Your task to perform on an android device: find snoozed emails in the gmail app Image 0: 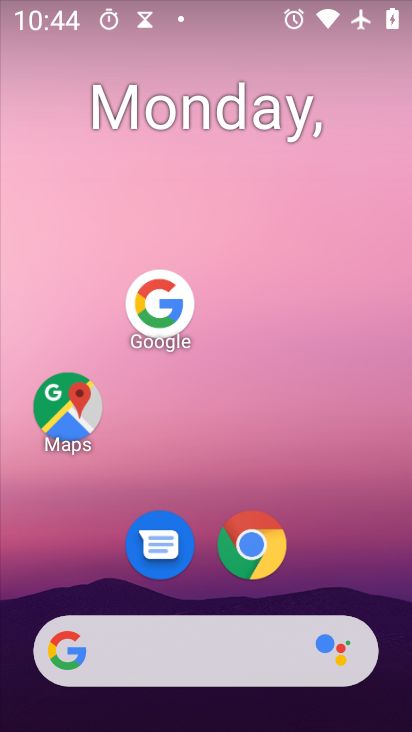
Step 0: press home button
Your task to perform on an android device: find snoozed emails in the gmail app Image 1: 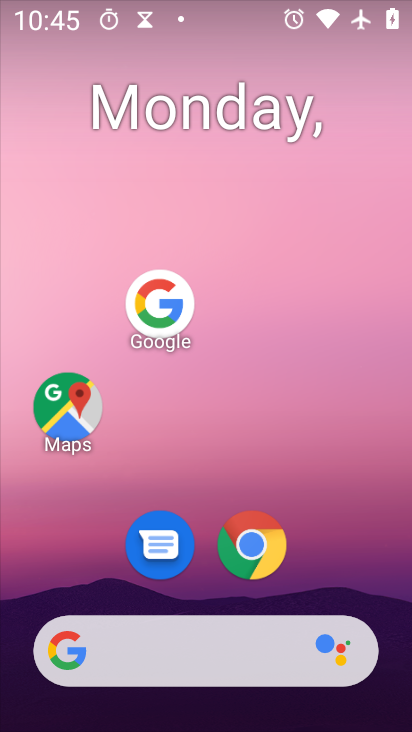
Step 1: drag from (303, 217) to (344, 109)
Your task to perform on an android device: find snoozed emails in the gmail app Image 2: 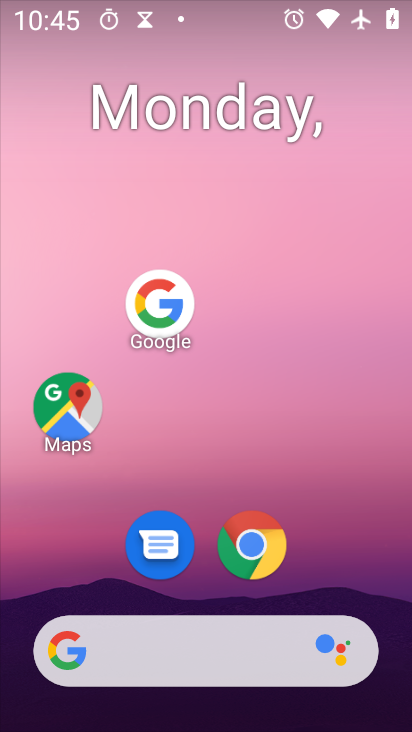
Step 2: drag from (201, 557) to (334, 109)
Your task to perform on an android device: find snoozed emails in the gmail app Image 3: 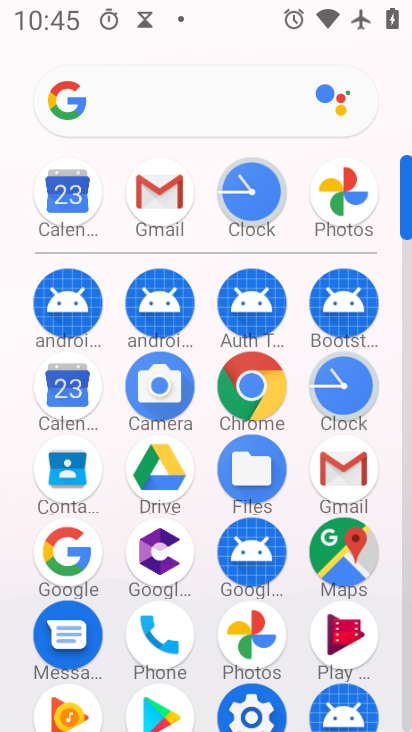
Step 3: click (148, 196)
Your task to perform on an android device: find snoozed emails in the gmail app Image 4: 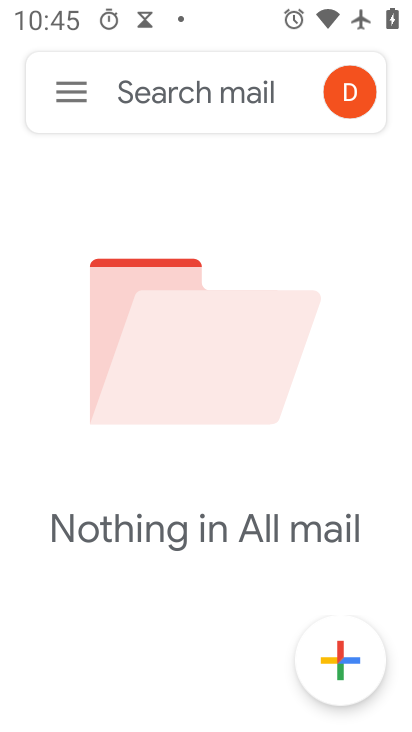
Step 4: click (69, 90)
Your task to perform on an android device: find snoozed emails in the gmail app Image 5: 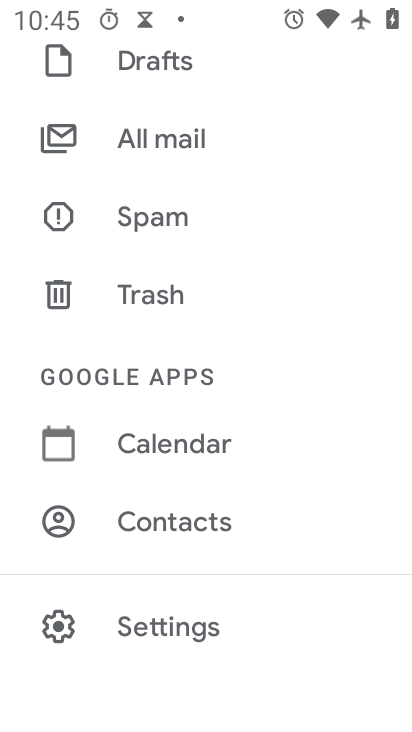
Step 5: drag from (298, 164) to (265, 613)
Your task to perform on an android device: find snoozed emails in the gmail app Image 6: 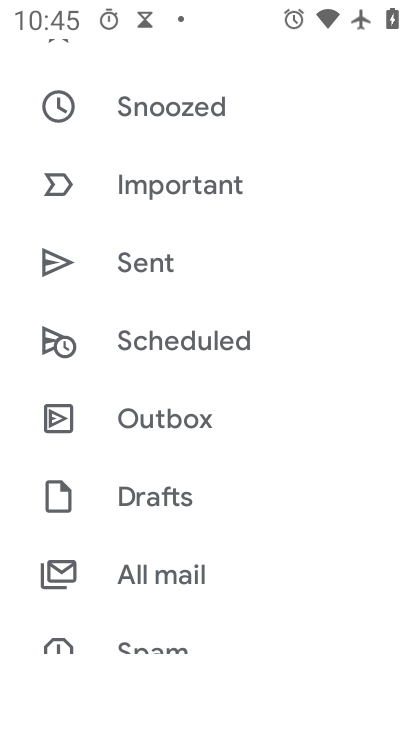
Step 6: click (187, 106)
Your task to perform on an android device: find snoozed emails in the gmail app Image 7: 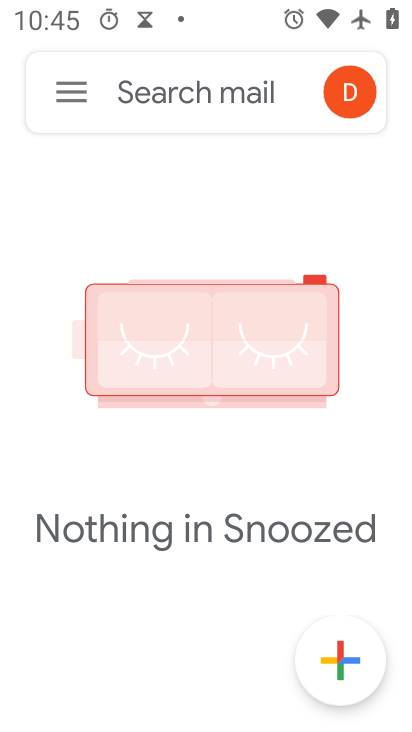
Step 7: task complete